Your task to perform on an android device: Is it going to rain tomorrow? Image 0: 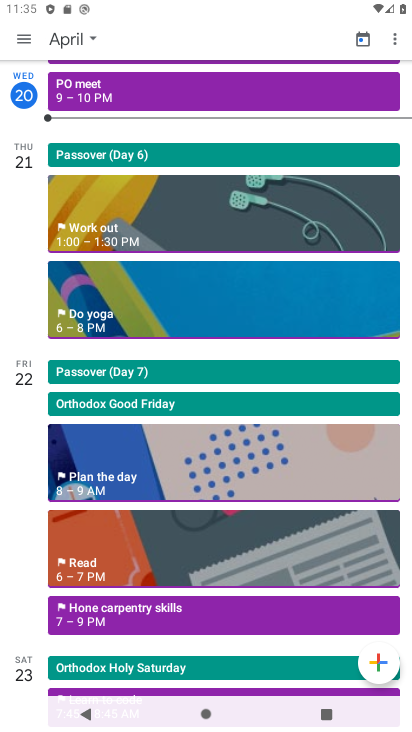
Step 0: press home button
Your task to perform on an android device: Is it going to rain tomorrow? Image 1: 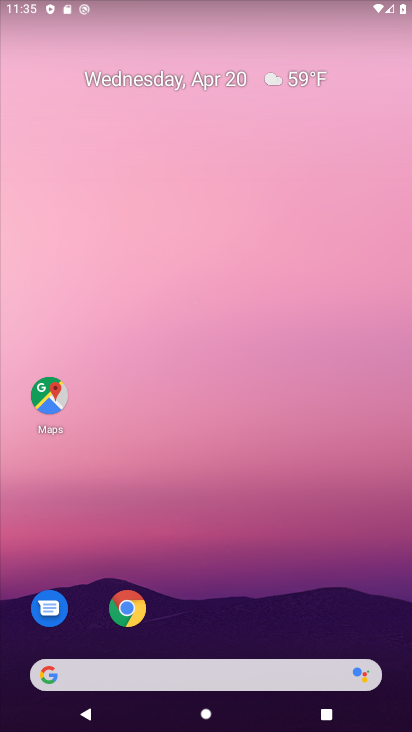
Step 1: drag from (229, 589) to (238, 94)
Your task to perform on an android device: Is it going to rain tomorrow? Image 2: 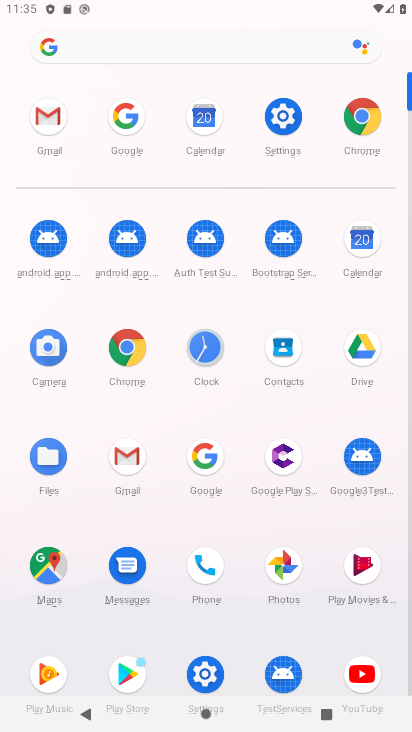
Step 2: click (205, 459)
Your task to perform on an android device: Is it going to rain tomorrow? Image 3: 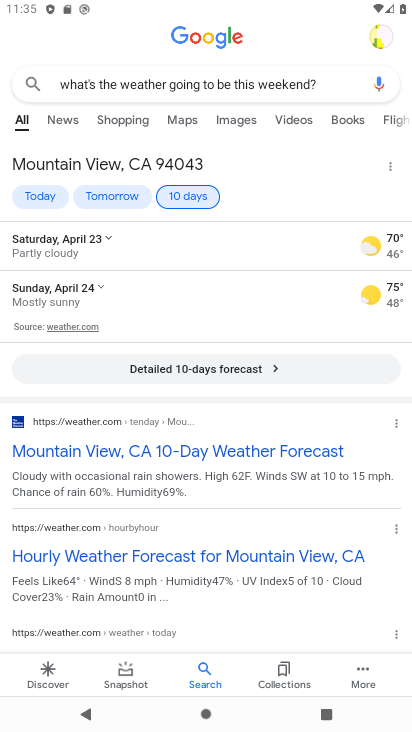
Step 3: click (317, 79)
Your task to perform on an android device: Is it going to rain tomorrow? Image 4: 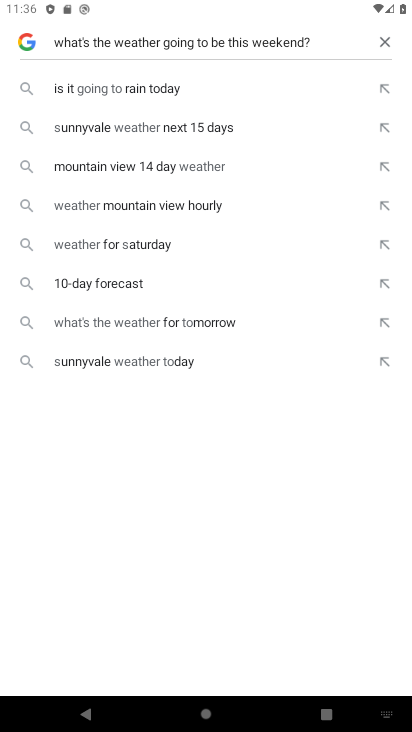
Step 4: click (387, 41)
Your task to perform on an android device: Is it going to rain tomorrow? Image 5: 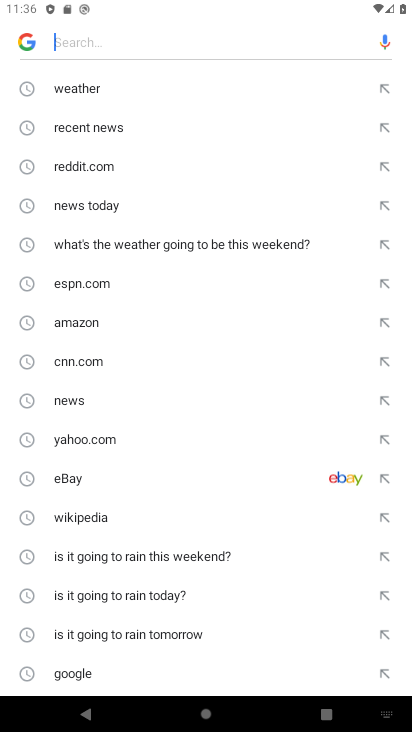
Step 5: type "is it going to rain tomorrow"
Your task to perform on an android device: Is it going to rain tomorrow? Image 6: 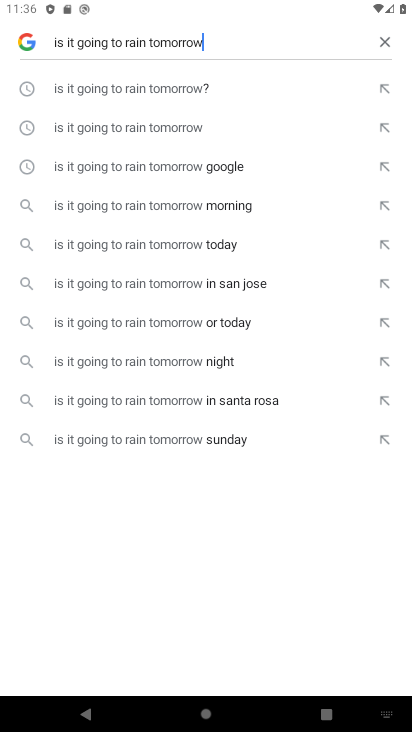
Step 6: click (154, 94)
Your task to perform on an android device: Is it going to rain tomorrow? Image 7: 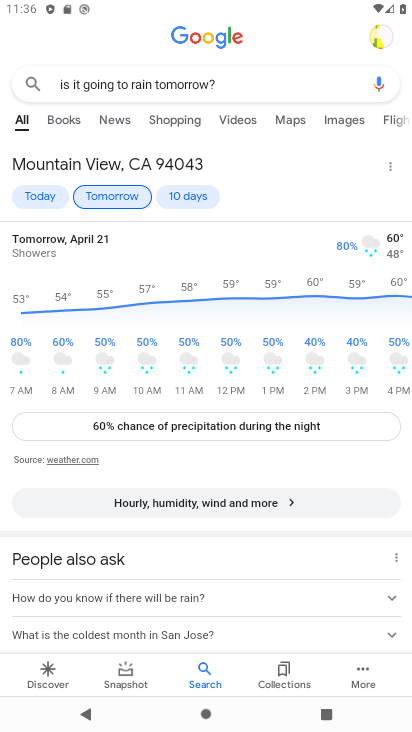
Step 7: task complete